Your task to perform on an android device: Search for the best 100% cotton t-shirts Image 0: 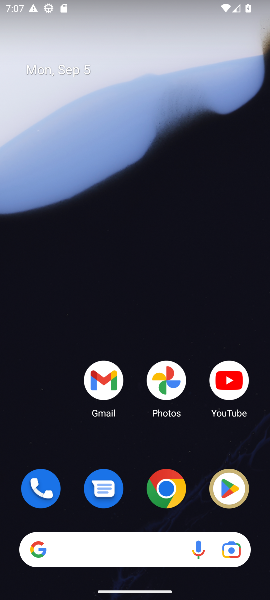
Step 0: click (161, 500)
Your task to perform on an android device: Search for the best 100% cotton t-shirts Image 1: 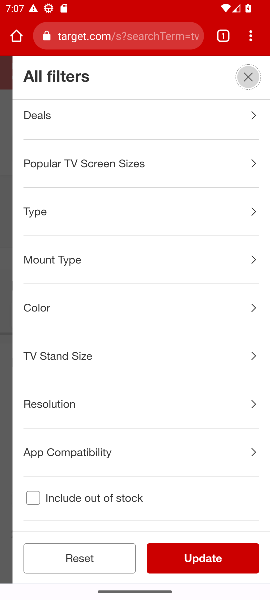
Step 1: click (100, 30)
Your task to perform on an android device: Search for the best 100% cotton t-shirts Image 2: 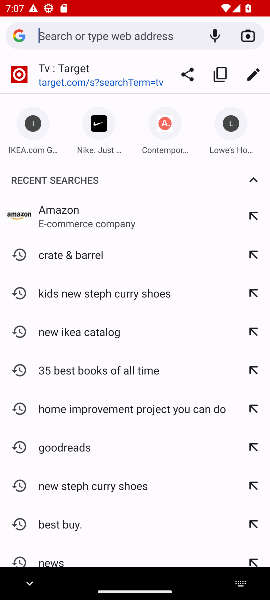
Step 2: type "best 100% cotton t-shirts"
Your task to perform on an android device: Search for the best 100% cotton t-shirts Image 3: 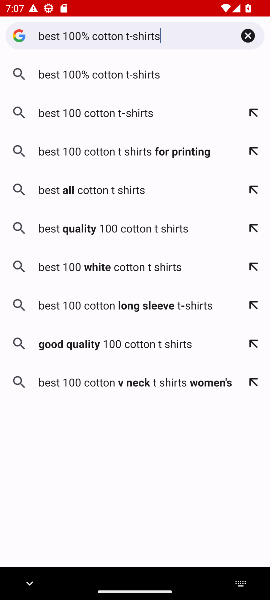
Step 3: press enter
Your task to perform on an android device: Search for the best 100% cotton t-shirts Image 4: 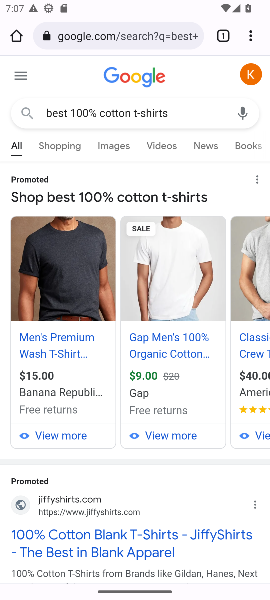
Step 4: task complete